Your task to perform on an android device: Show me popular videos on Youtube Image 0: 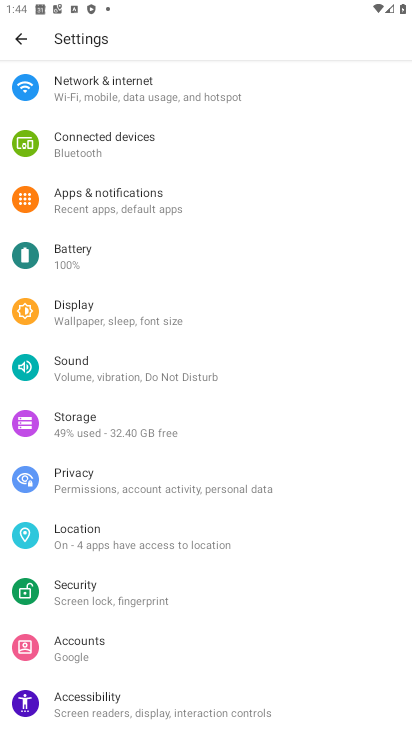
Step 0: press home button
Your task to perform on an android device: Show me popular videos on Youtube Image 1: 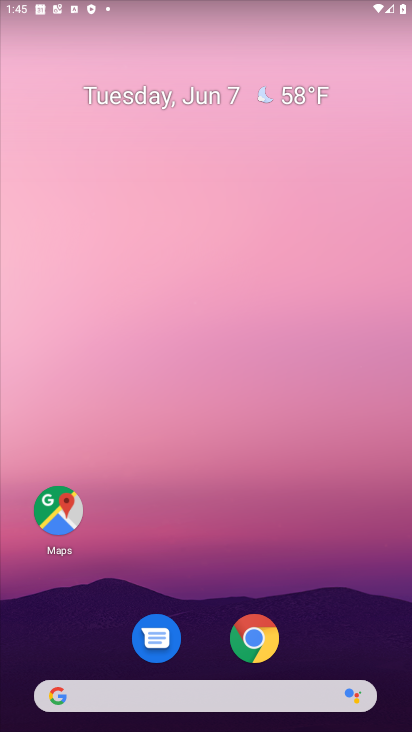
Step 1: drag from (240, 616) to (239, 275)
Your task to perform on an android device: Show me popular videos on Youtube Image 2: 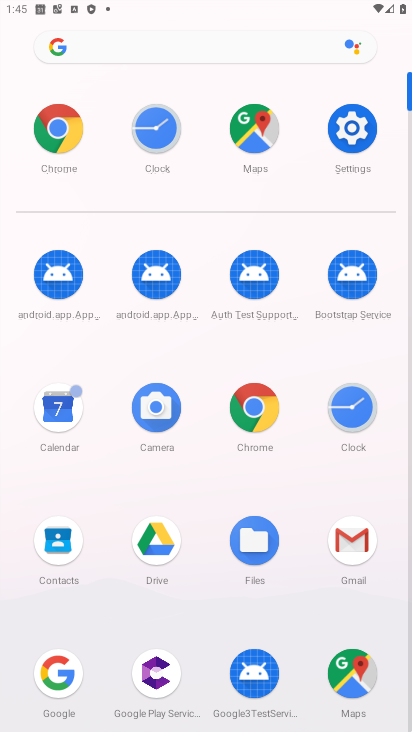
Step 2: drag from (294, 595) to (323, 315)
Your task to perform on an android device: Show me popular videos on Youtube Image 3: 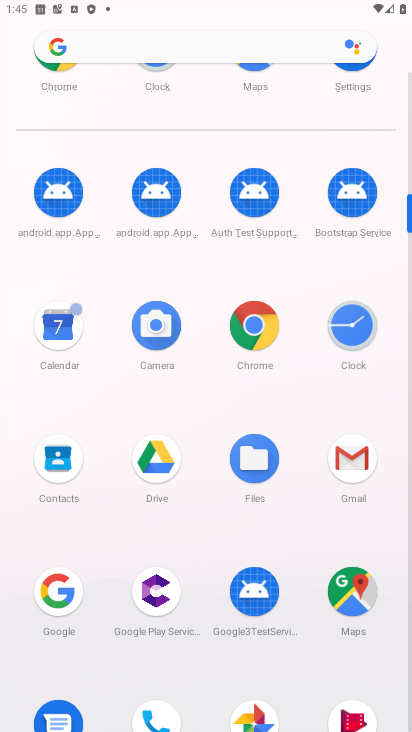
Step 3: drag from (323, 676) to (365, 289)
Your task to perform on an android device: Show me popular videos on Youtube Image 4: 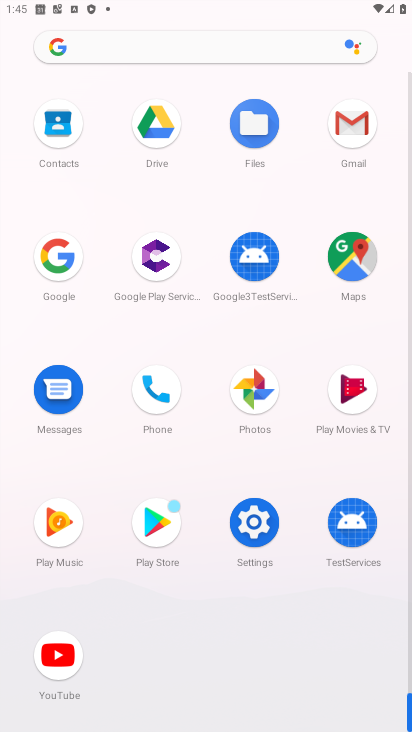
Step 4: click (62, 661)
Your task to perform on an android device: Show me popular videos on Youtube Image 5: 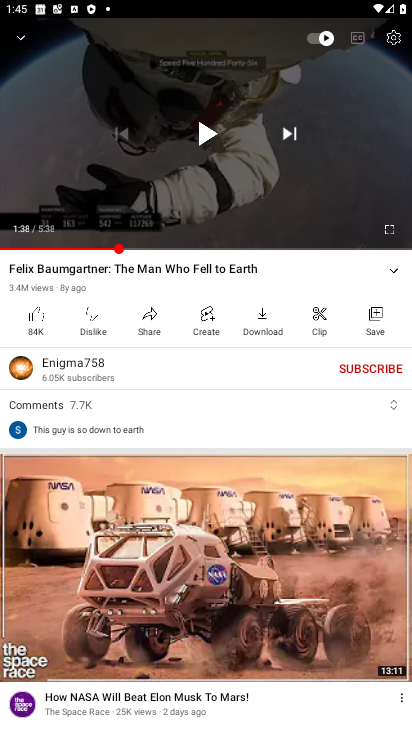
Step 5: press back button
Your task to perform on an android device: Show me popular videos on Youtube Image 6: 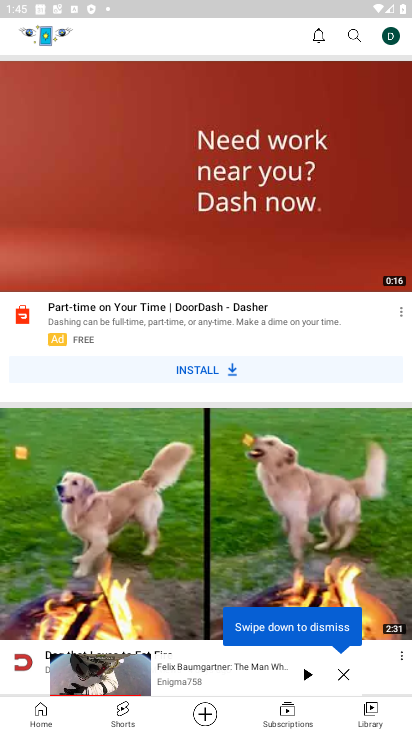
Step 6: click (360, 36)
Your task to perform on an android device: Show me popular videos on Youtube Image 7: 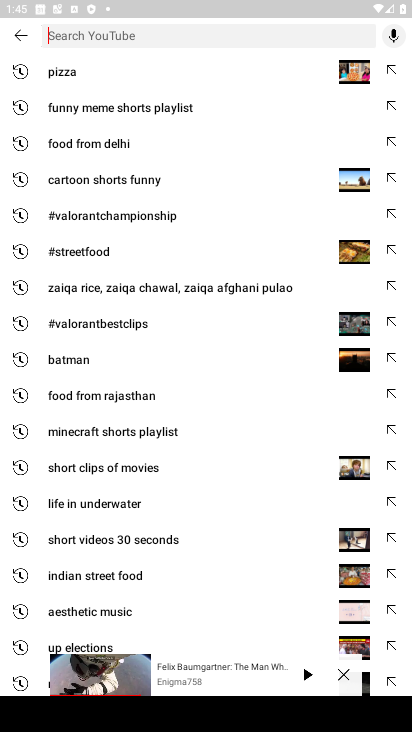
Step 7: type "popular videos "
Your task to perform on an android device: Show me popular videos on Youtube Image 8: 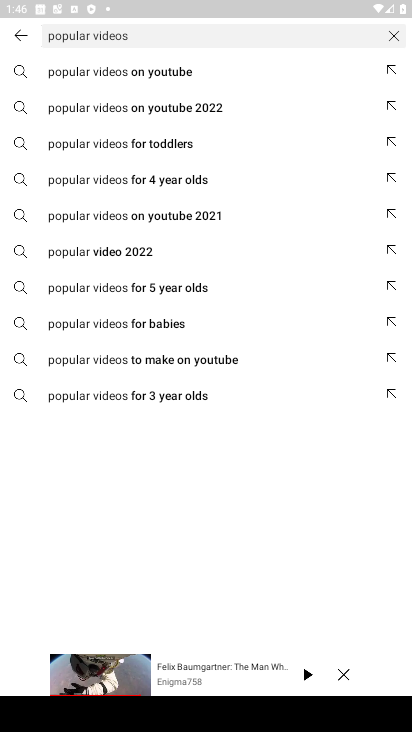
Step 8: click (162, 77)
Your task to perform on an android device: Show me popular videos on Youtube Image 9: 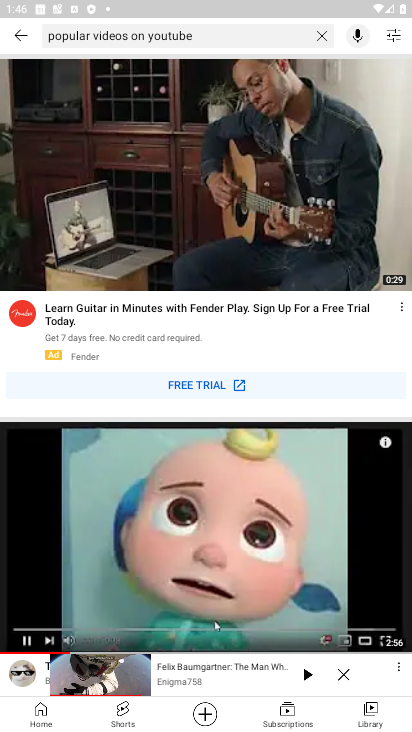
Step 9: click (340, 673)
Your task to perform on an android device: Show me popular videos on Youtube Image 10: 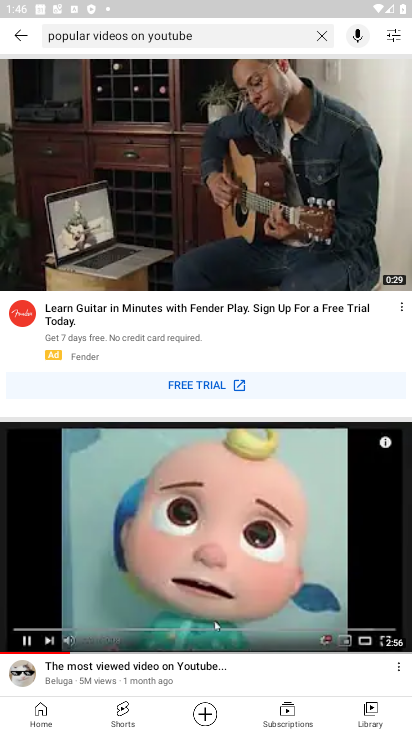
Step 10: task complete